Your task to perform on an android device: Open the web browser Image 0: 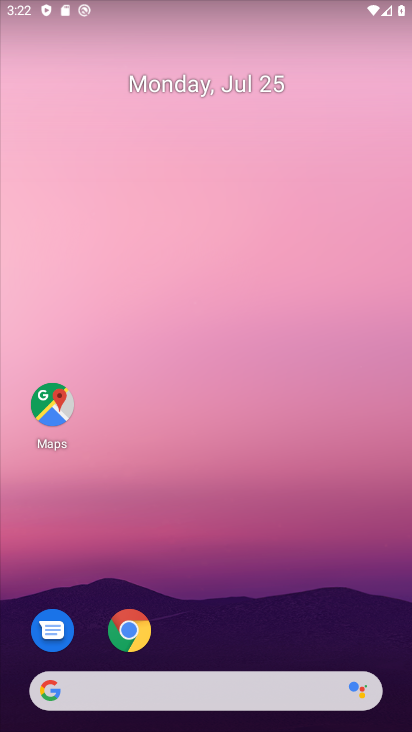
Step 0: drag from (243, 648) to (186, 0)
Your task to perform on an android device: Open the web browser Image 1: 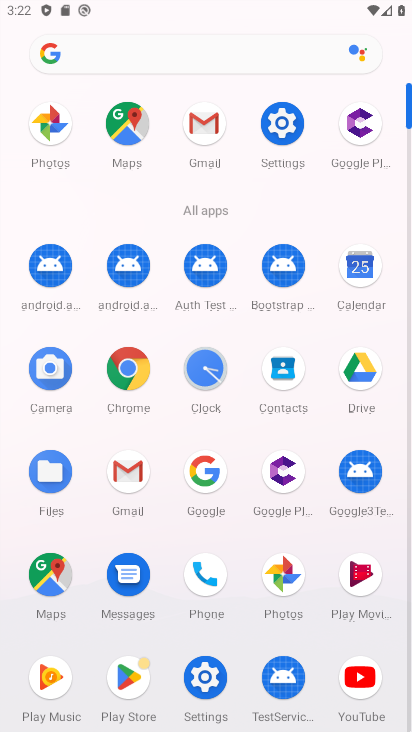
Step 1: click (130, 384)
Your task to perform on an android device: Open the web browser Image 2: 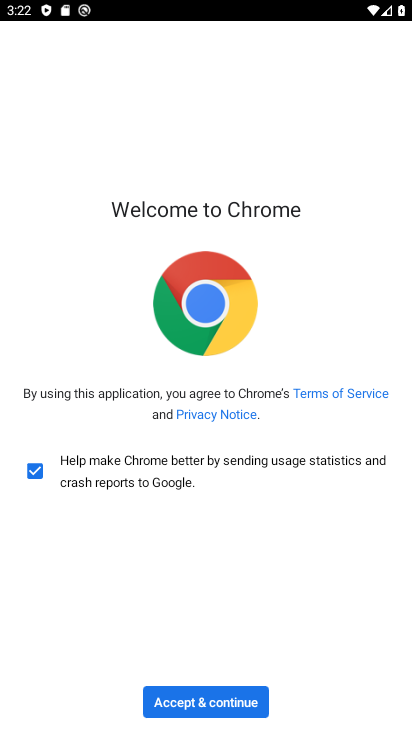
Step 2: click (237, 700)
Your task to perform on an android device: Open the web browser Image 3: 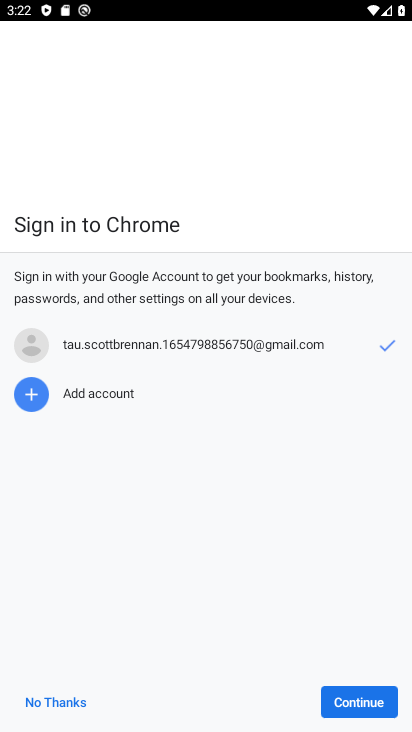
Step 3: click (372, 704)
Your task to perform on an android device: Open the web browser Image 4: 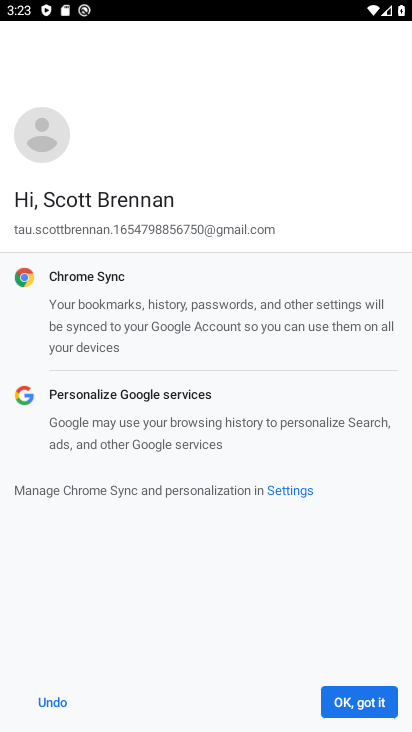
Step 4: click (372, 704)
Your task to perform on an android device: Open the web browser Image 5: 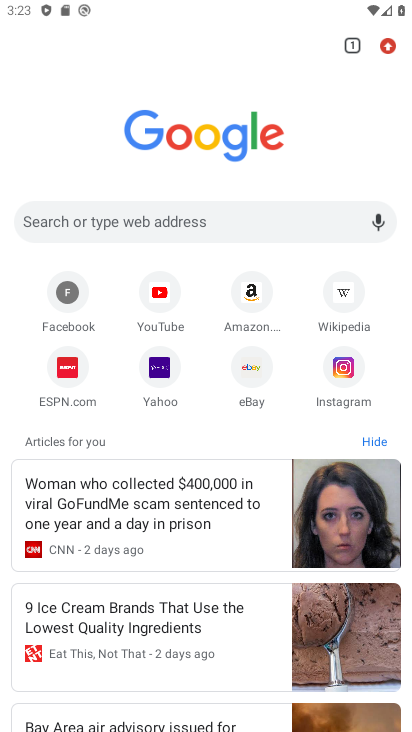
Step 5: task complete